Your task to perform on an android device: Open my contact list Image 0: 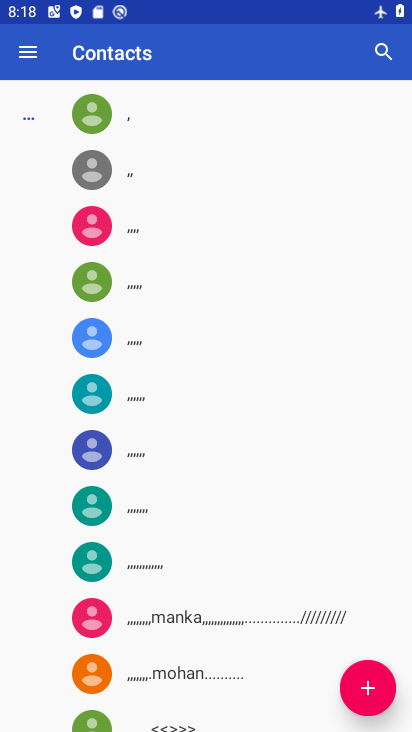
Step 0: drag from (219, 561) to (257, 150)
Your task to perform on an android device: Open my contact list Image 1: 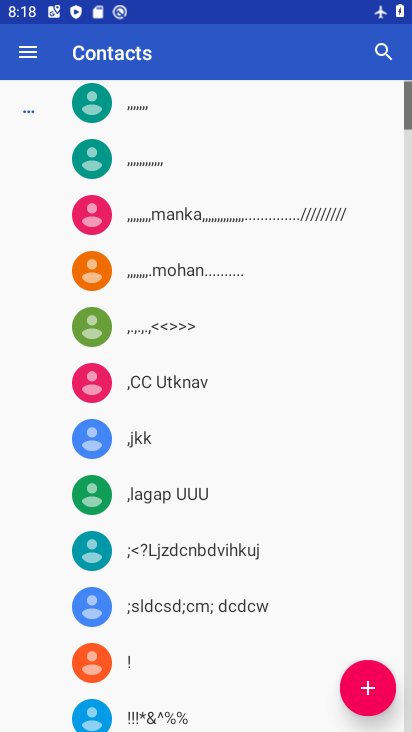
Step 1: task complete